Your task to perform on an android device: Open Yahoo.com Image 0: 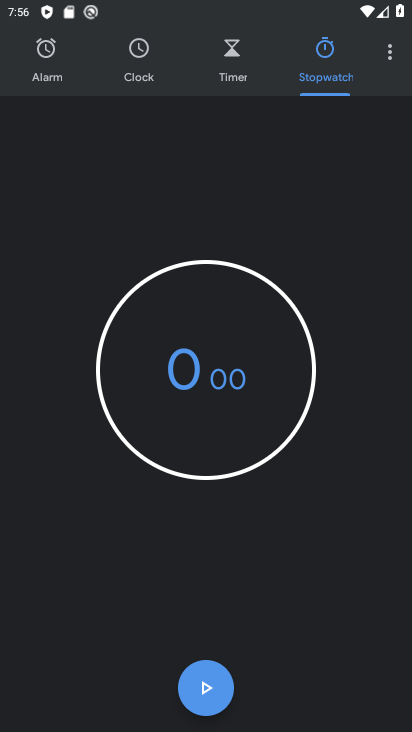
Step 0: press home button
Your task to perform on an android device: Open Yahoo.com Image 1: 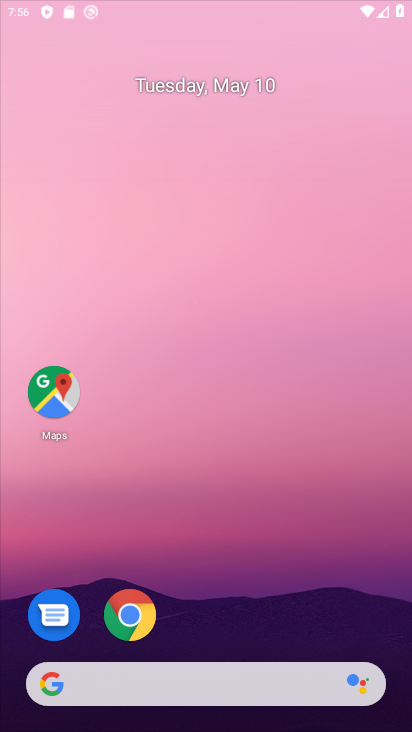
Step 1: drag from (252, 641) to (252, 367)
Your task to perform on an android device: Open Yahoo.com Image 2: 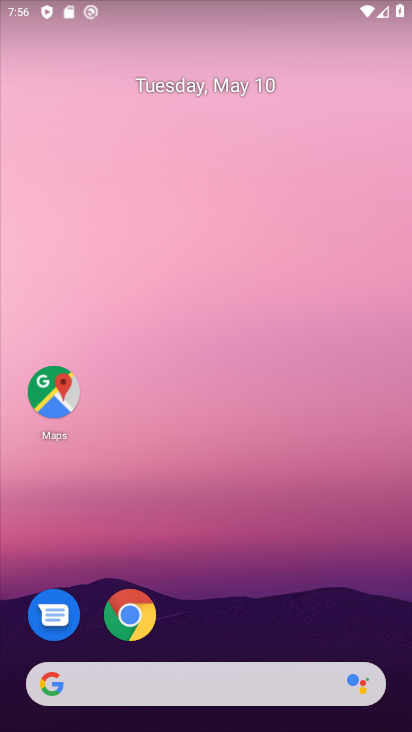
Step 2: click (187, 688)
Your task to perform on an android device: Open Yahoo.com Image 3: 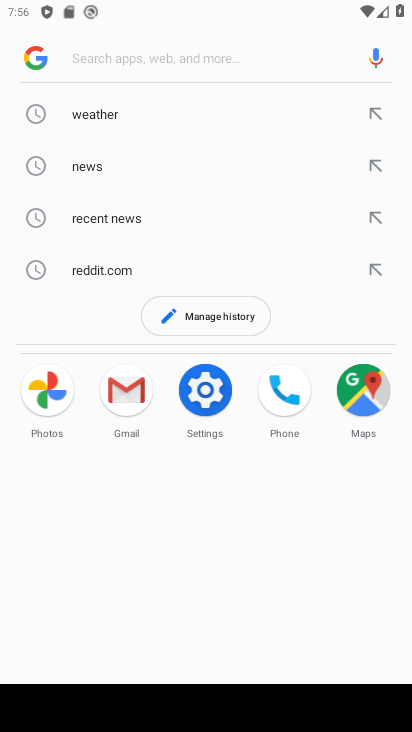
Step 3: type "yahoo.com"
Your task to perform on an android device: Open Yahoo.com Image 4: 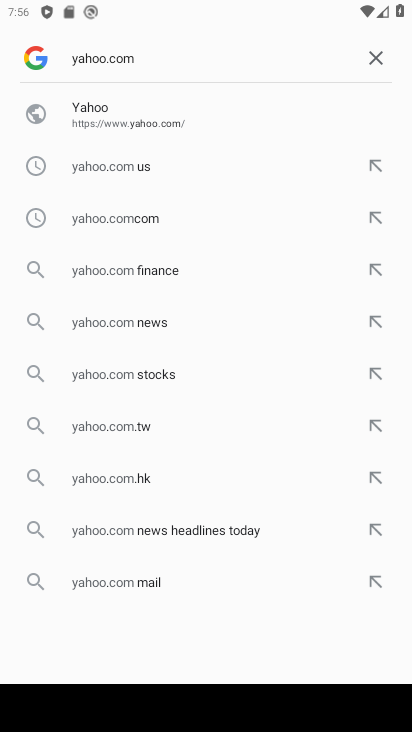
Step 4: click (207, 95)
Your task to perform on an android device: Open Yahoo.com Image 5: 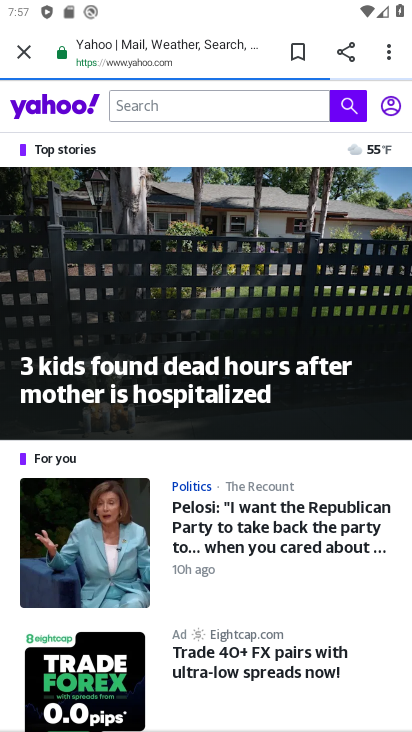
Step 5: task complete